Your task to perform on an android device: refresh tabs in the chrome app Image 0: 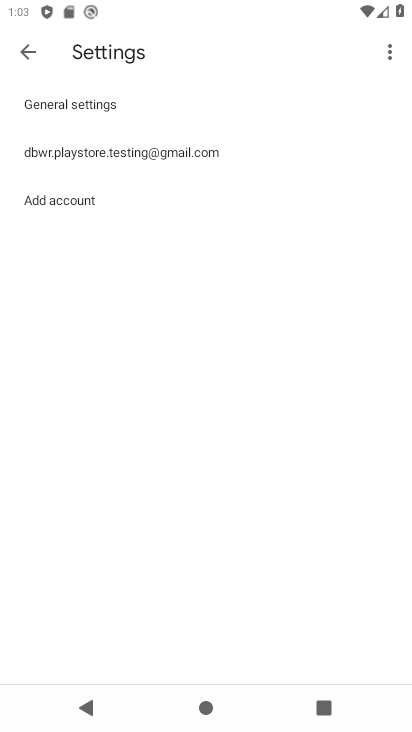
Step 0: press home button
Your task to perform on an android device: refresh tabs in the chrome app Image 1: 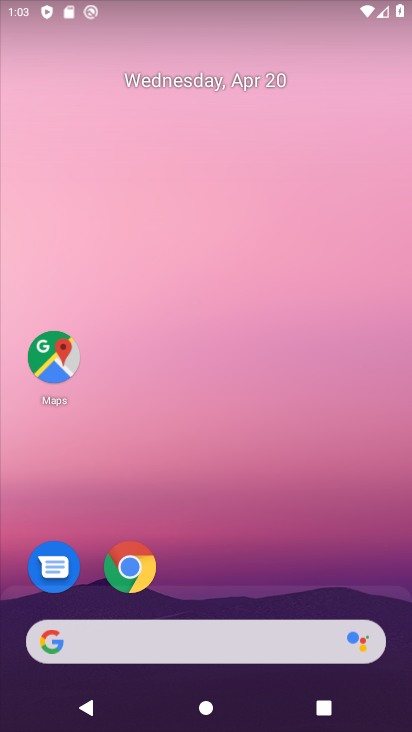
Step 1: click (130, 569)
Your task to perform on an android device: refresh tabs in the chrome app Image 2: 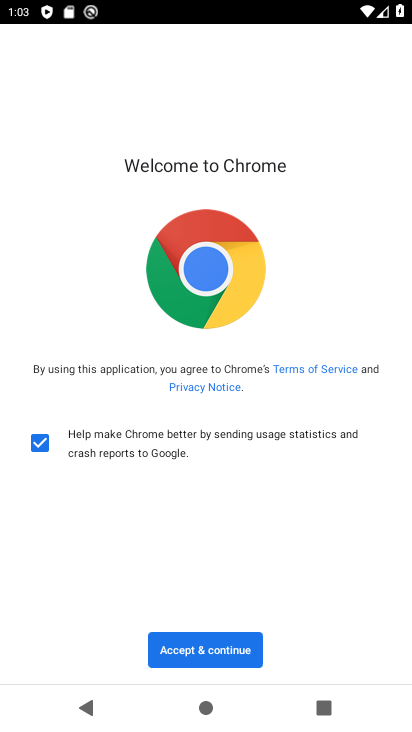
Step 2: click (228, 652)
Your task to perform on an android device: refresh tabs in the chrome app Image 3: 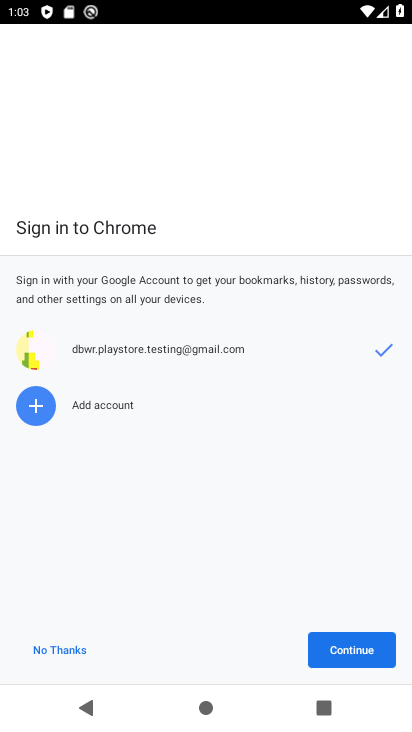
Step 3: click (360, 653)
Your task to perform on an android device: refresh tabs in the chrome app Image 4: 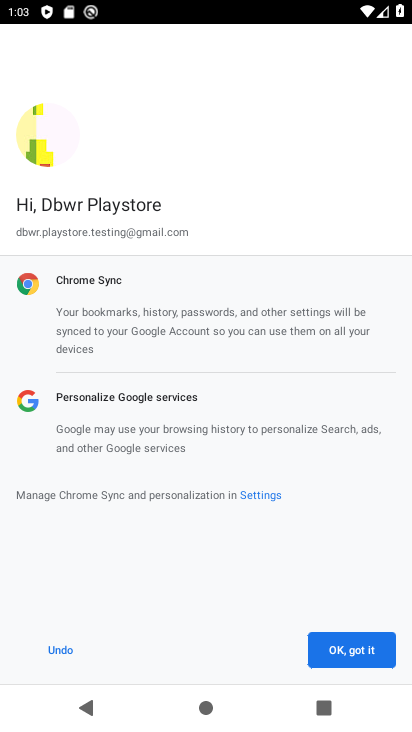
Step 4: click (343, 647)
Your task to perform on an android device: refresh tabs in the chrome app Image 5: 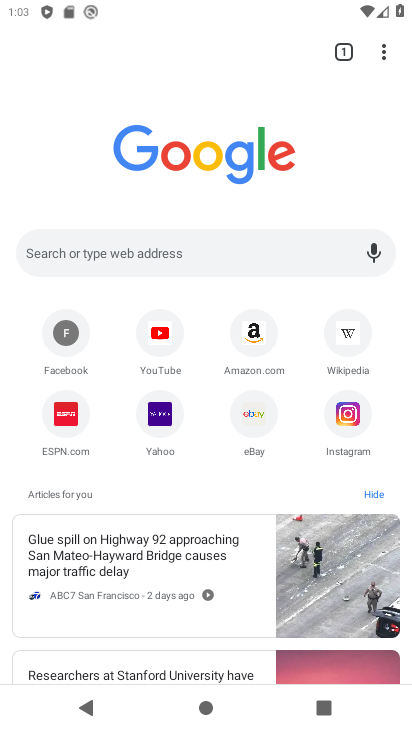
Step 5: click (383, 57)
Your task to perform on an android device: refresh tabs in the chrome app Image 6: 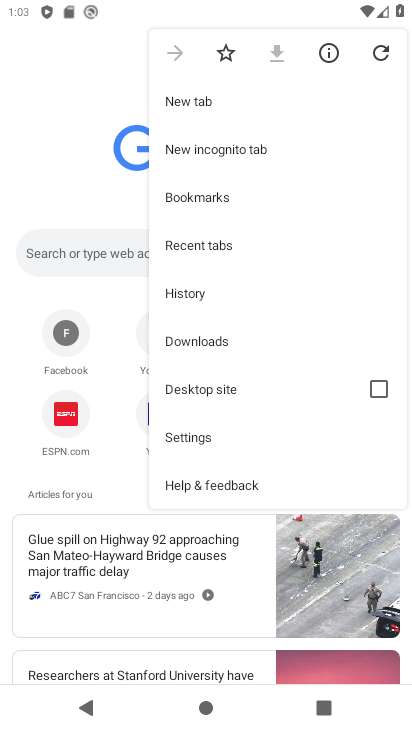
Step 6: click (386, 52)
Your task to perform on an android device: refresh tabs in the chrome app Image 7: 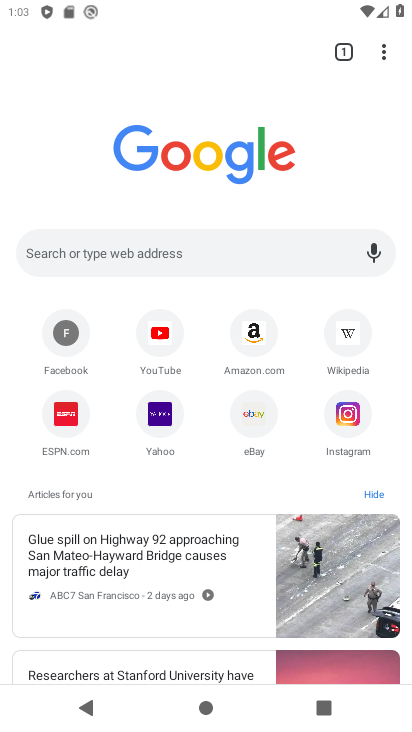
Step 7: task complete